Your task to perform on an android device: Play the last video I watched on Youtube Image 0: 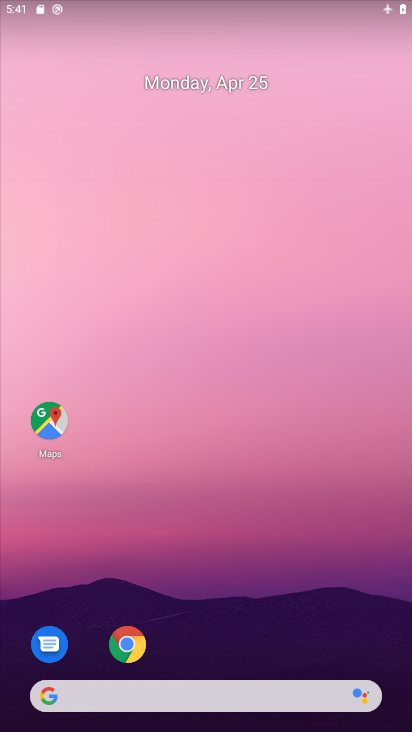
Step 0: drag from (258, 641) to (184, 105)
Your task to perform on an android device: Play the last video I watched on Youtube Image 1: 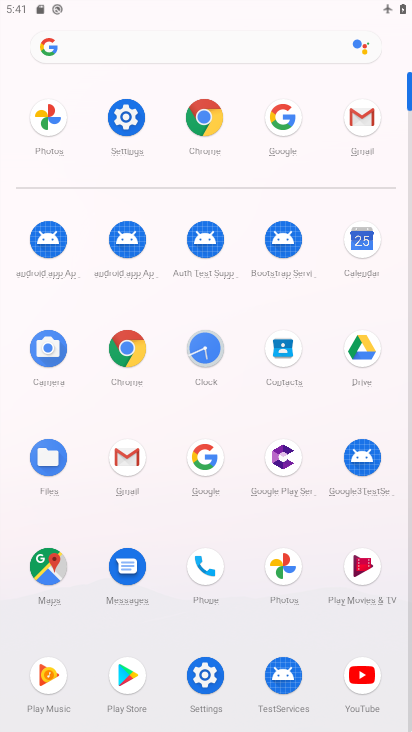
Step 1: click (360, 677)
Your task to perform on an android device: Play the last video I watched on Youtube Image 2: 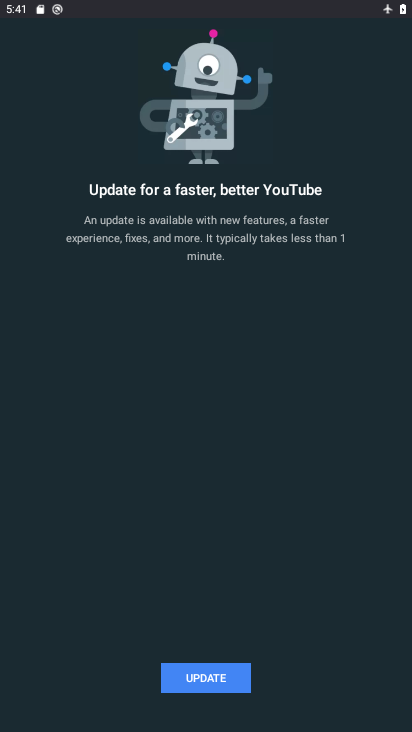
Step 2: click (223, 673)
Your task to perform on an android device: Play the last video I watched on Youtube Image 3: 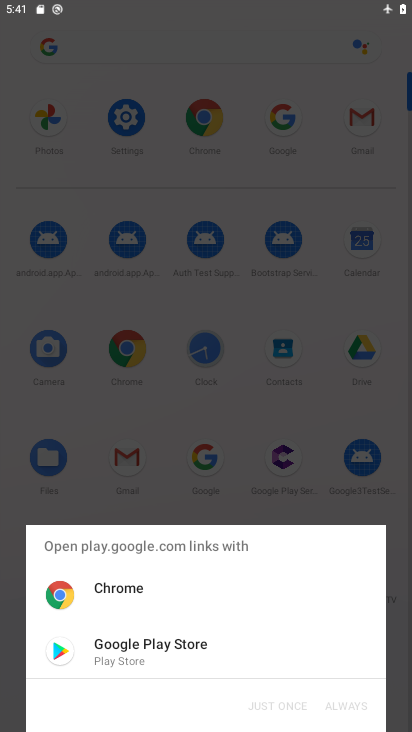
Step 3: click (109, 586)
Your task to perform on an android device: Play the last video I watched on Youtube Image 4: 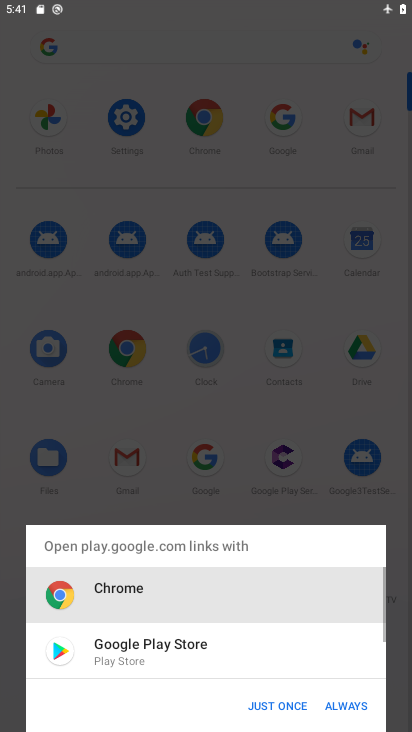
Step 4: click (280, 703)
Your task to perform on an android device: Play the last video I watched on Youtube Image 5: 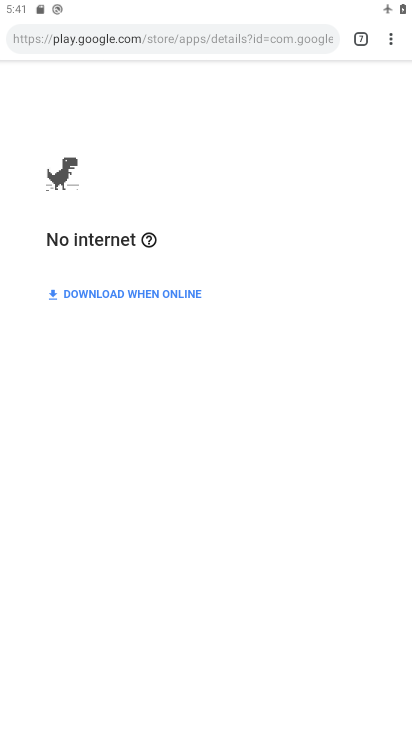
Step 5: task complete